Your task to perform on an android device: turn on javascript in the chrome app Image 0: 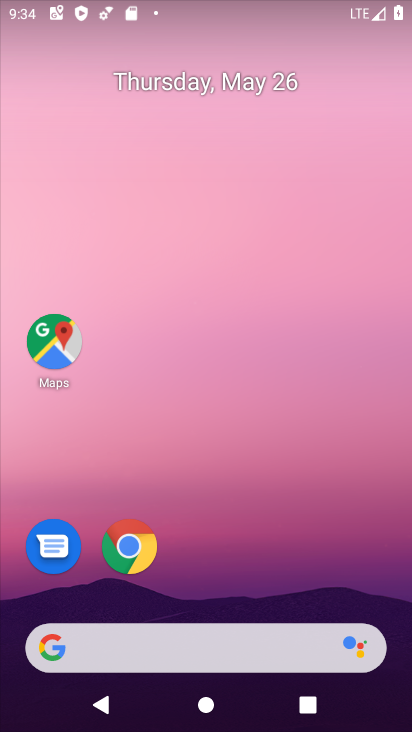
Step 0: drag from (356, 585) to (313, 97)
Your task to perform on an android device: turn on javascript in the chrome app Image 1: 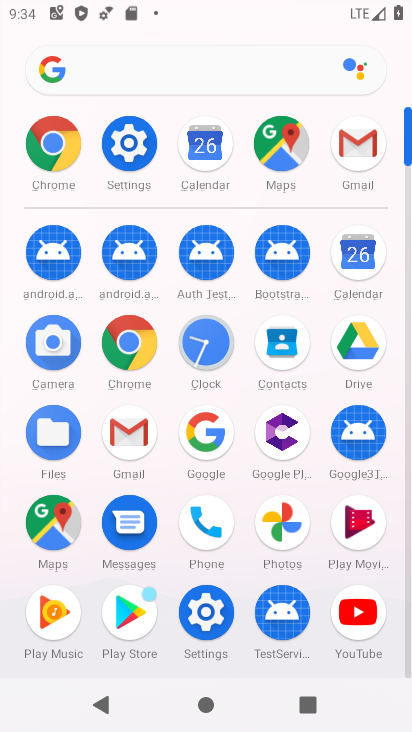
Step 1: click (133, 361)
Your task to perform on an android device: turn on javascript in the chrome app Image 2: 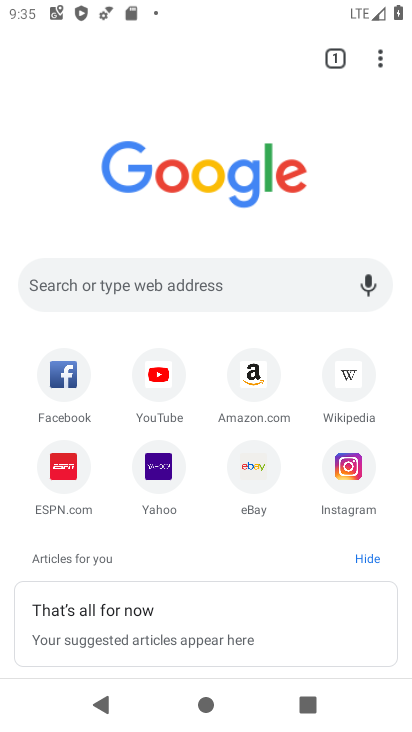
Step 2: drag from (386, 69) to (217, 487)
Your task to perform on an android device: turn on javascript in the chrome app Image 3: 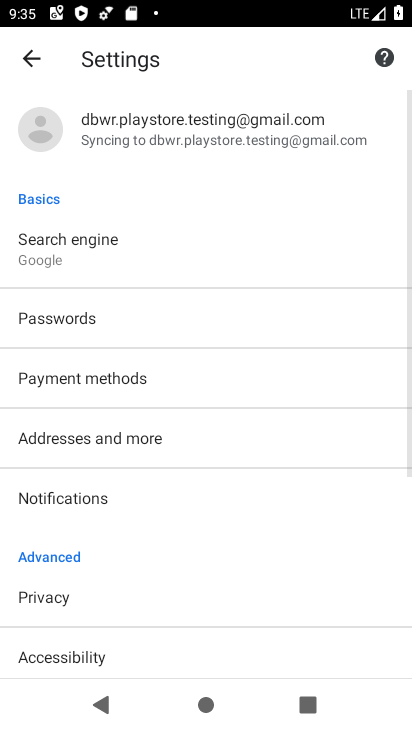
Step 3: drag from (237, 594) to (273, 298)
Your task to perform on an android device: turn on javascript in the chrome app Image 4: 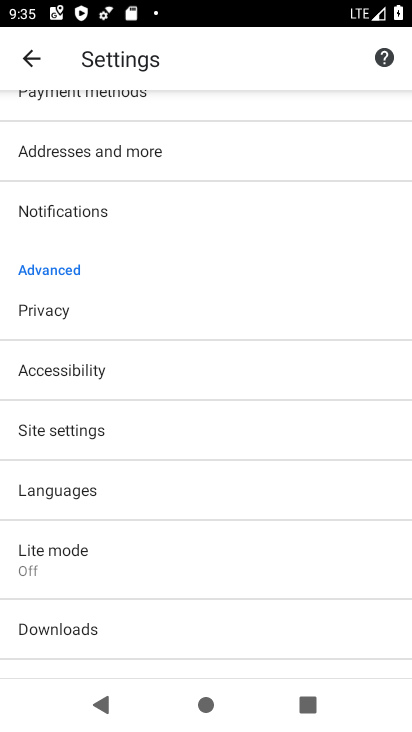
Step 4: drag from (233, 539) to (265, 244)
Your task to perform on an android device: turn on javascript in the chrome app Image 5: 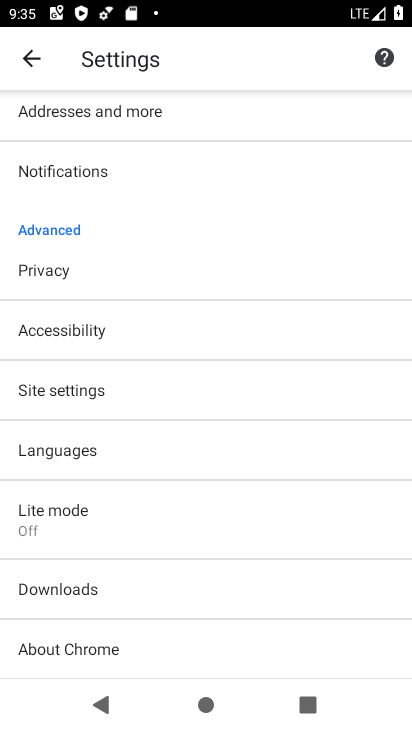
Step 5: click (163, 391)
Your task to perform on an android device: turn on javascript in the chrome app Image 6: 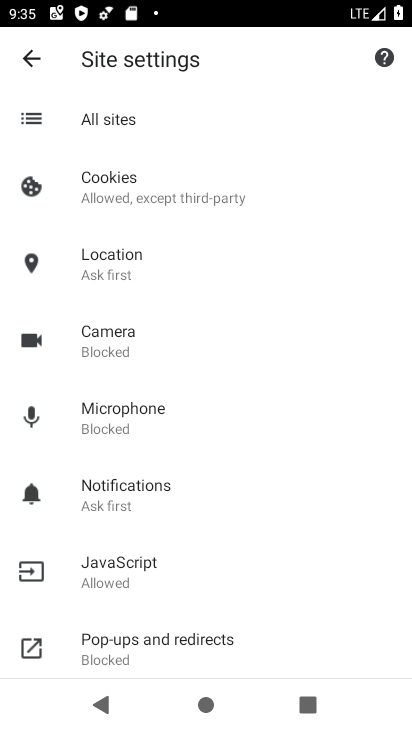
Step 6: drag from (246, 589) to (262, 376)
Your task to perform on an android device: turn on javascript in the chrome app Image 7: 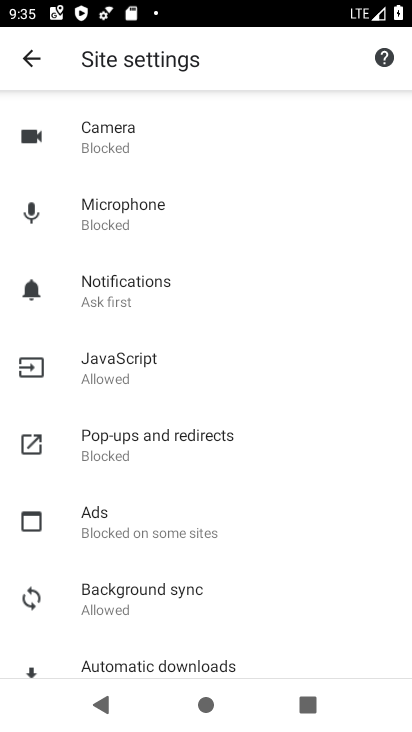
Step 7: click (193, 363)
Your task to perform on an android device: turn on javascript in the chrome app Image 8: 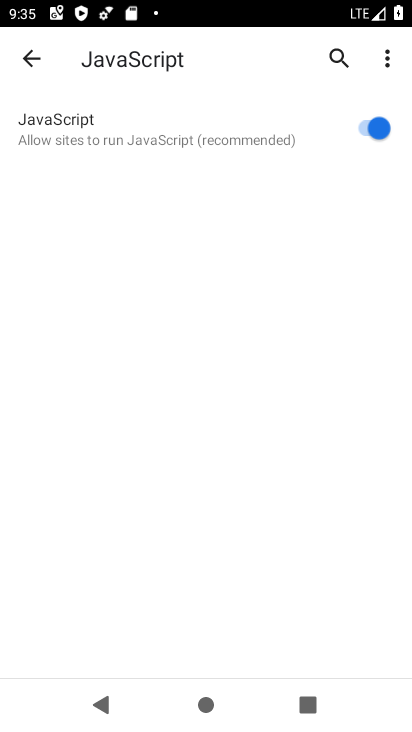
Step 8: task complete